Your task to perform on an android device: turn on location history Image 0: 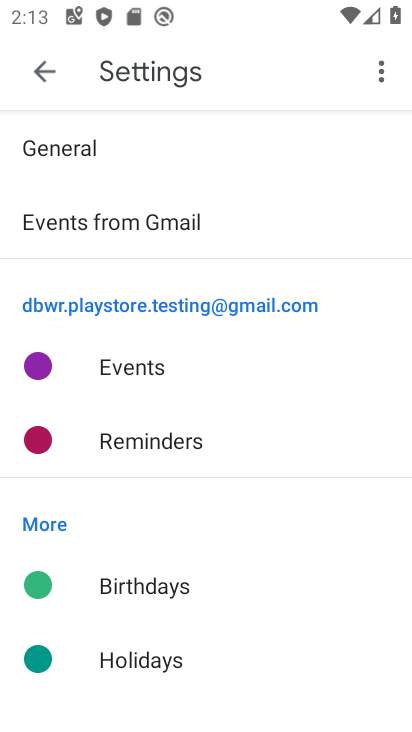
Step 0: press home button
Your task to perform on an android device: turn on location history Image 1: 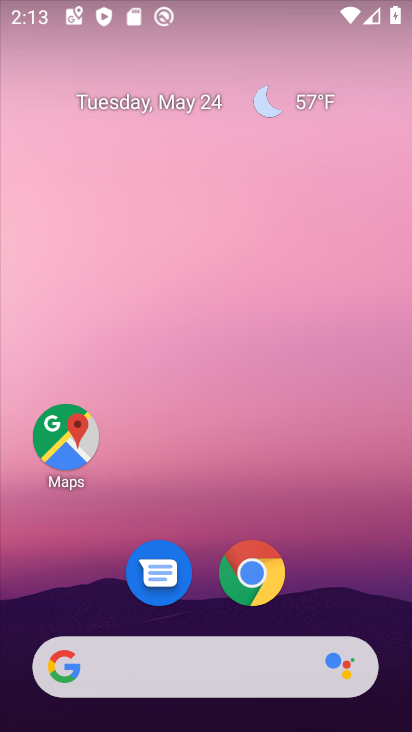
Step 1: drag from (348, 622) to (256, 187)
Your task to perform on an android device: turn on location history Image 2: 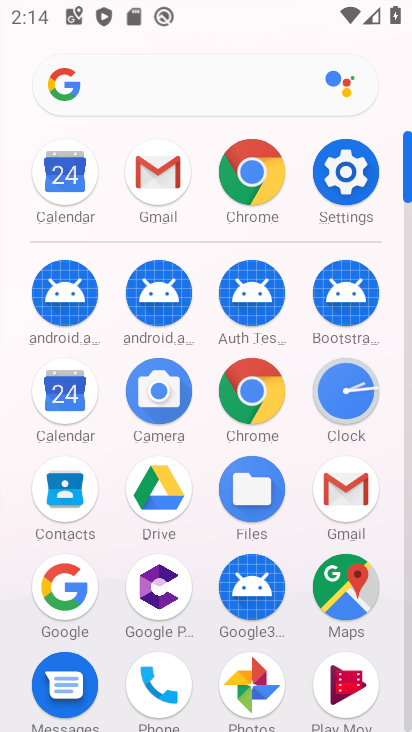
Step 2: click (366, 198)
Your task to perform on an android device: turn on location history Image 3: 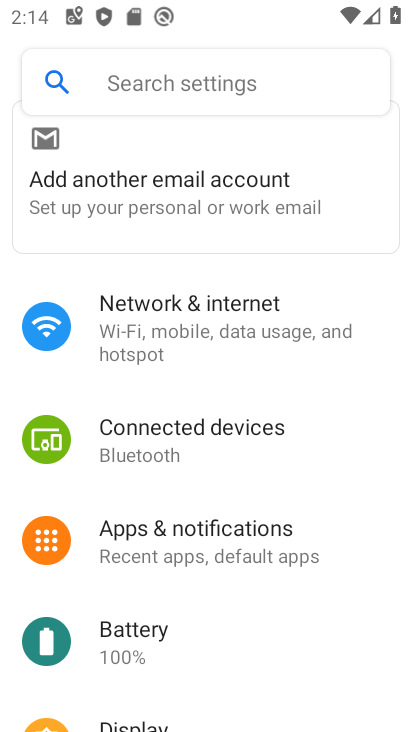
Step 3: drag from (238, 589) to (265, 251)
Your task to perform on an android device: turn on location history Image 4: 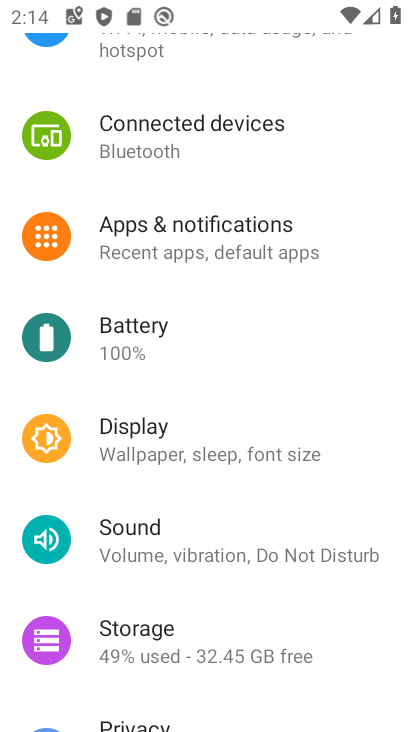
Step 4: drag from (188, 619) to (190, 395)
Your task to perform on an android device: turn on location history Image 5: 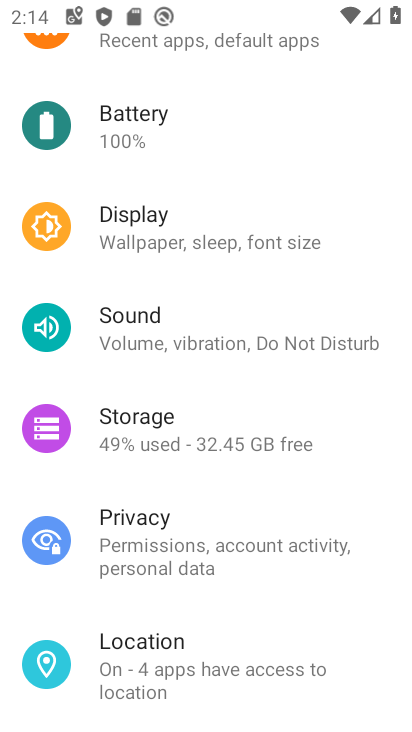
Step 5: click (187, 648)
Your task to perform on an android device: turn on location history Image 6: 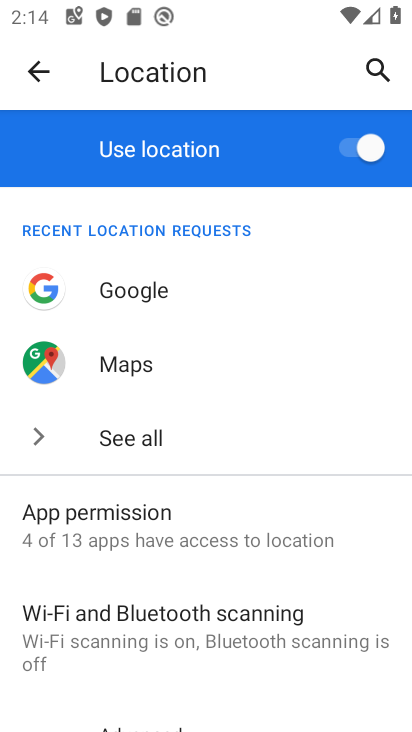
Step 6: drag from (209, 674) to (216, 403)
Your task to perform on an android device: turn on location history Image 7: 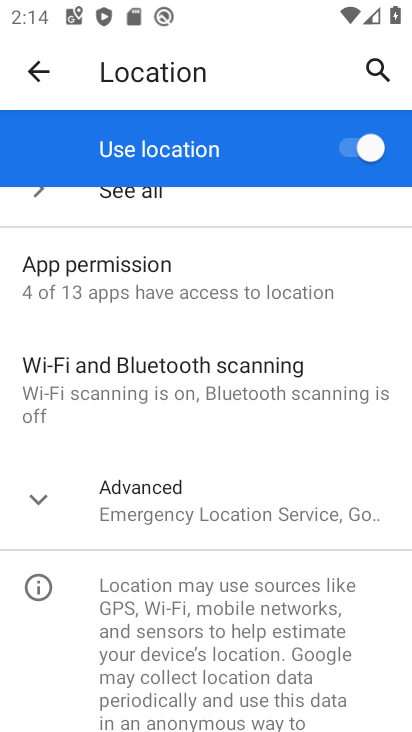
Step 7: click (132, 498)
Your task to perform on an android device: turn on location history Image 8: 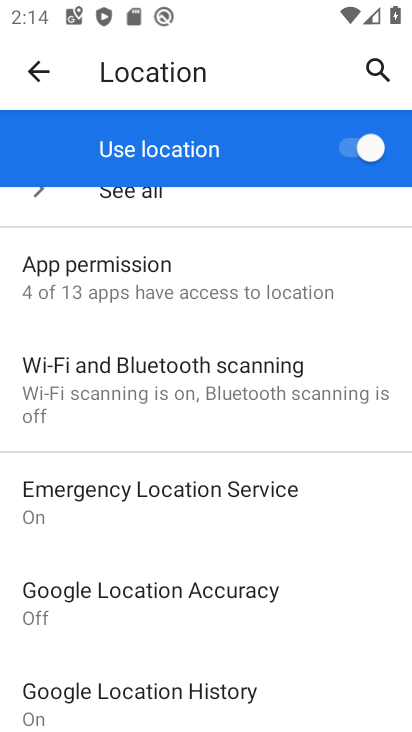
Step 8: click (215, 695)
Your task to perform on an android device: turn on location history Image 9: 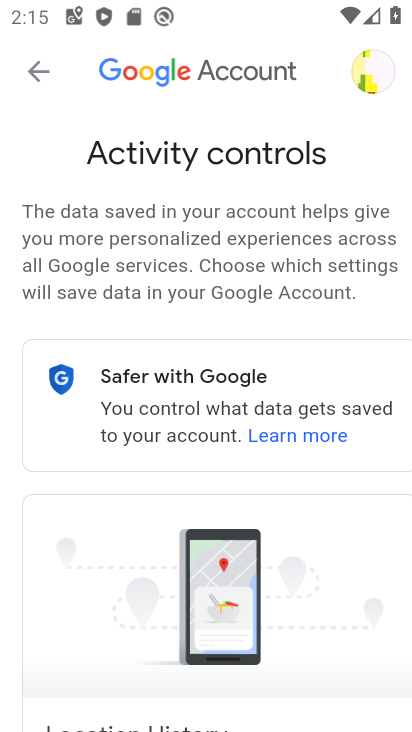
Step 9: task complete